Your task to perform on an android device: Show me popular games on the Play Store Image 0: 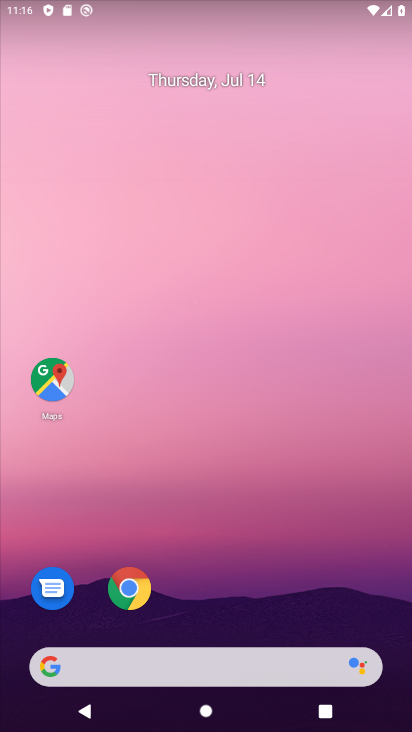
Step 0: drag from (193, 620) to (172, 36)
Your task to perform on an android device: Show me popular games on the Play Store Image 1: 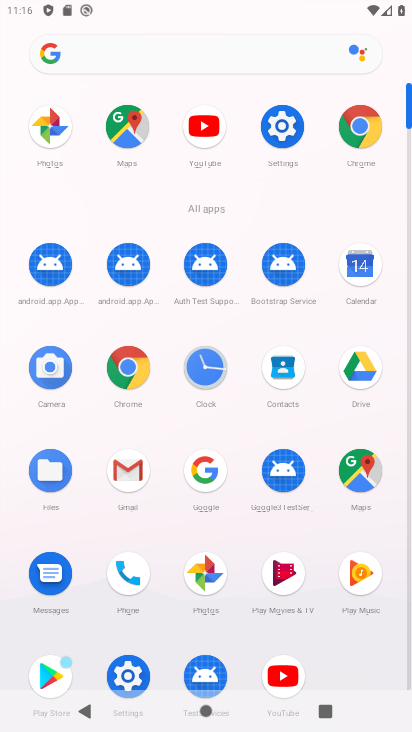
Step 1: click (55, 656)
Your task to perform on an android device: Show me popular games on the Play Store Image 2: 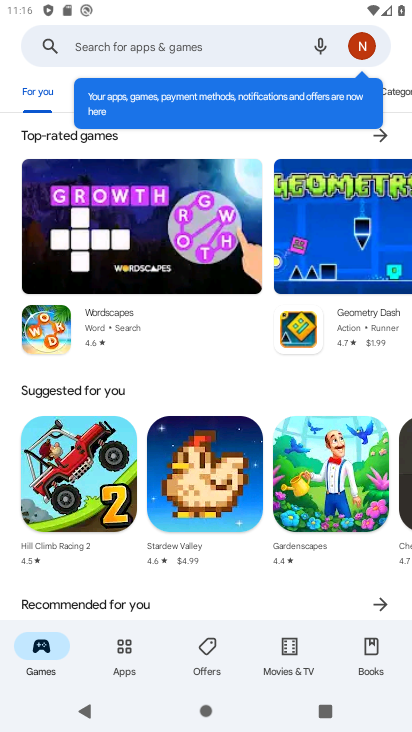
Step 2: click (116, 644)
Your task to perform on an android device: Show me popular games on the Play Store Image 3: 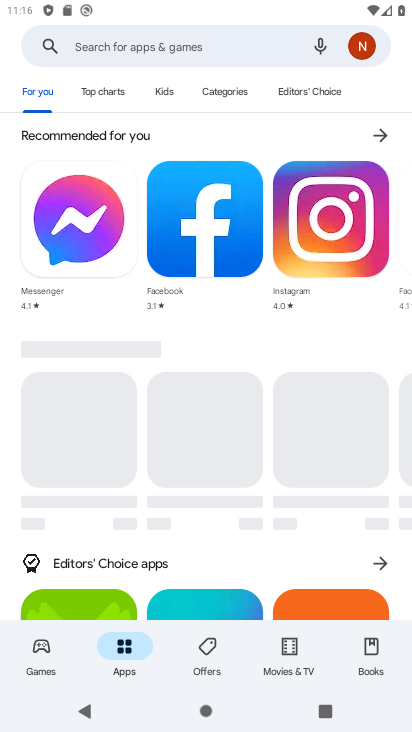
Step 3: click (41, 645)
Your task to perform on an android device: Show me popular games on the Play Store Image 4: 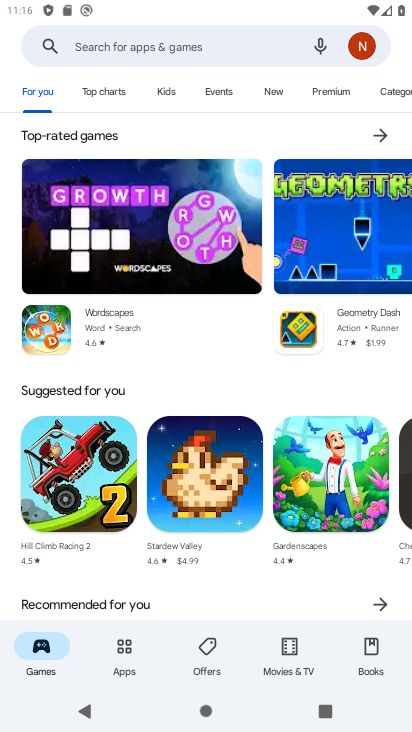
Step 4: click (106, 87)
Your task to perform on an android device: Show me popular games on the Play Store Image 5: 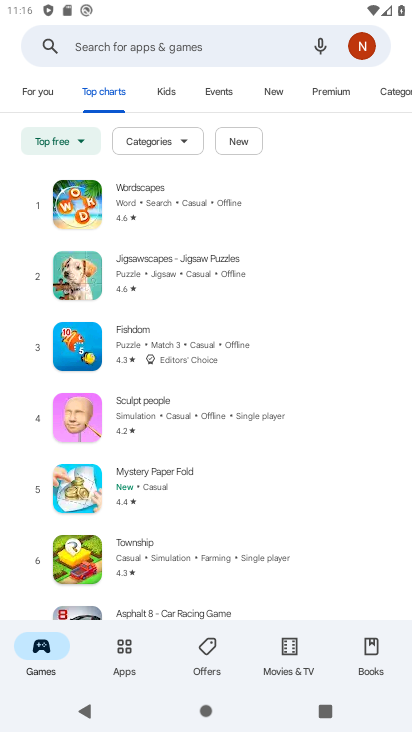
Step 5: task complete